Your task to perform on an android device: Go to location settings Image 0: 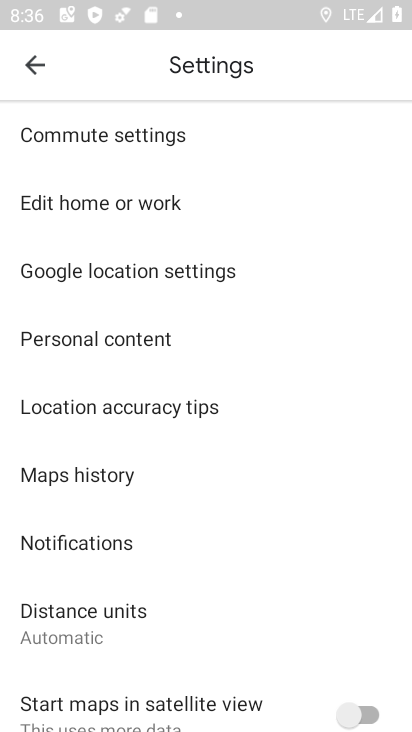
Step 0: click (122, 275)
Your task to perform on an android device: Go to location settings Image 1: 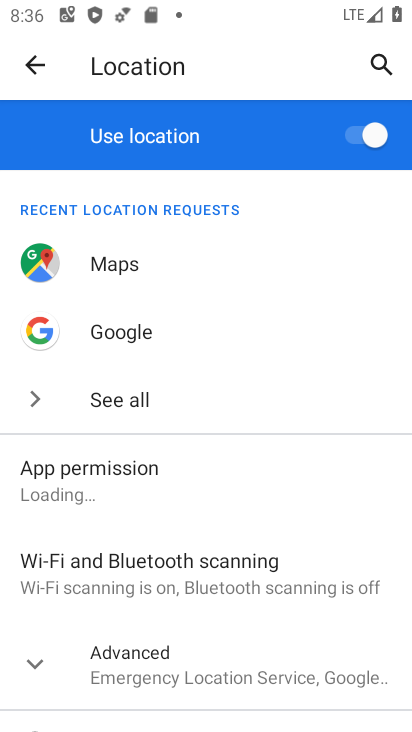
Step 1: task complete